Your task to perform on an android device: star an email in the gmail app Image 0: 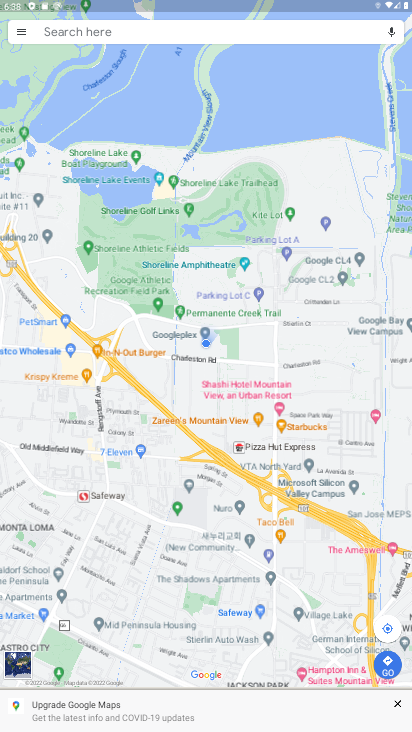
Step 0: press home button
Your task to perform on an android device: star an email in the gmail app Image 1: 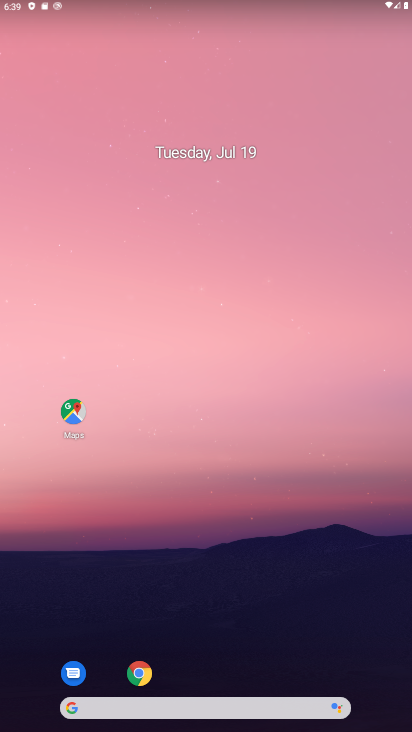
Step 1: drag from (374, 681) to (271, 114)
Your task to perform on an android device: star an email in the gmail app Image 2: 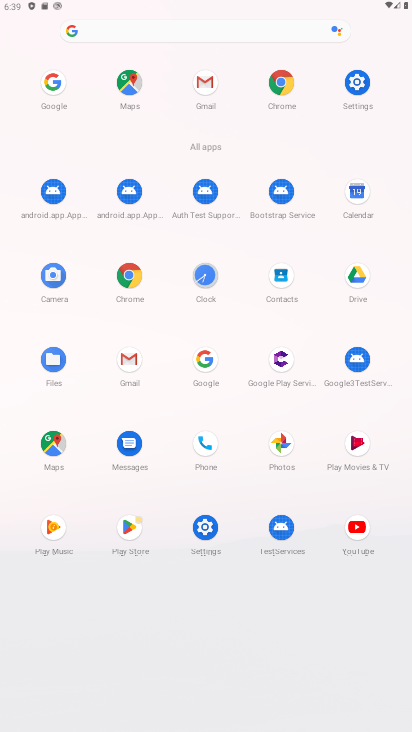
Step 2: click (130, 371)
Your task to perform on an android device: star an email in the gmail app Image 3: 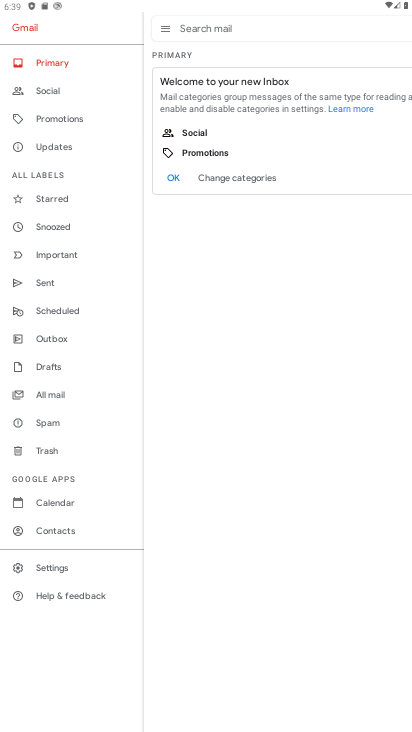
Step 3: click (45, 59)
Your task to perform on an android device: star an email in the gmail app Image 4: 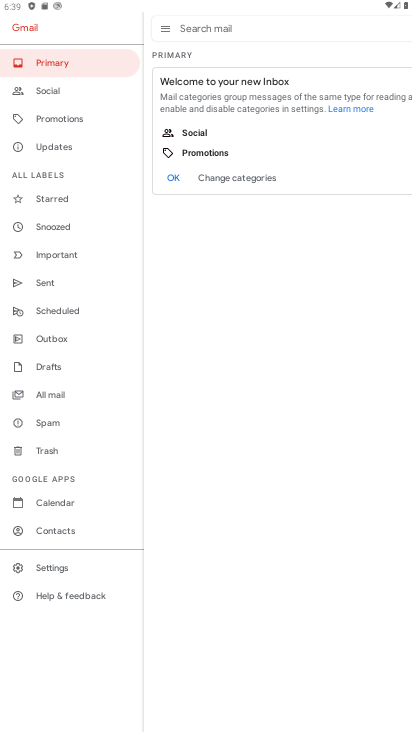
Step 4: click (45, 59)
Your task to perform on an android device: star an email in the gmail app Image 5: 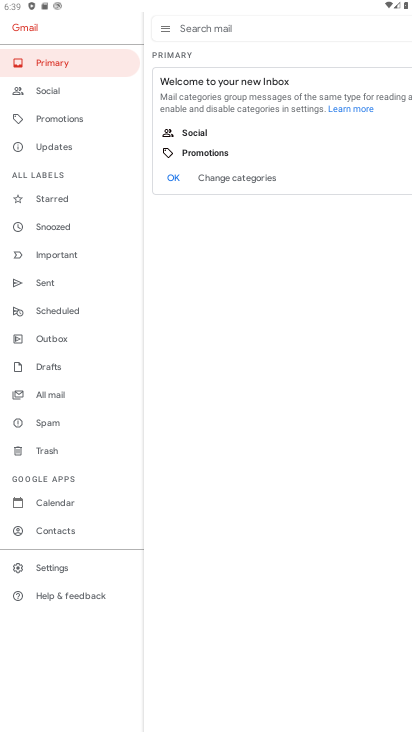
Step 5: click (228, 308)
Your task to perform on an android device: star an email in the gmail app Image 6: 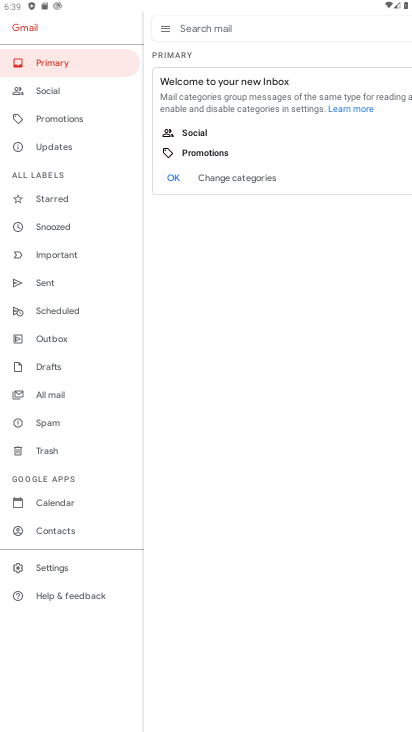
Step 6: task complete